Your task to perform on an android device: Show me the alarms in the clock app Image 0: 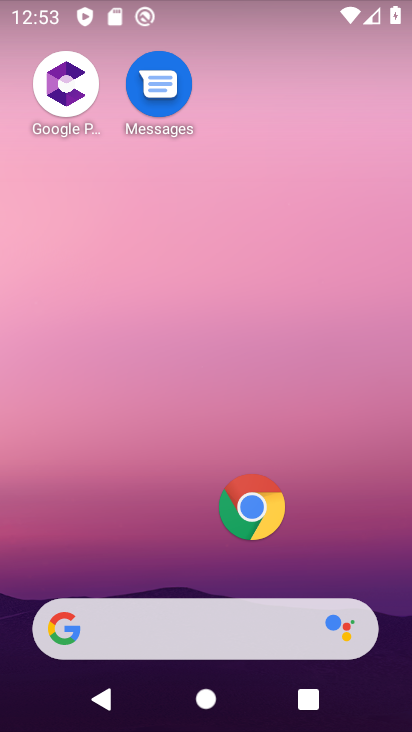
Step 0: drag from (184, 478) to (250, 45)
Your task to perform on an android device: Show me the alarms in the clock app Image 1: 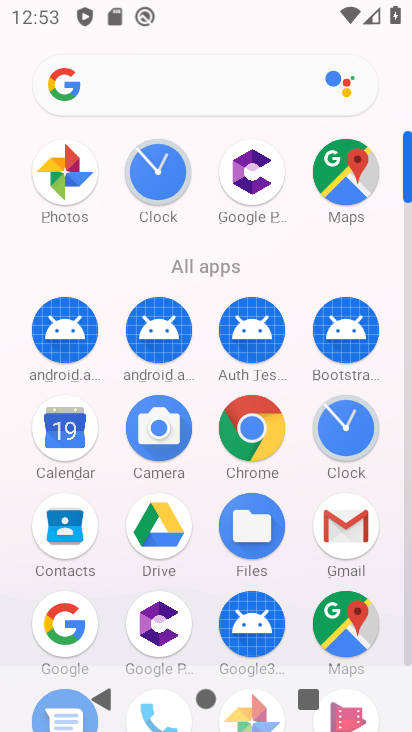
Step 1: click (349, 426)
Your task to perform on an android device: Show me the alarms in the clock app Image 2: 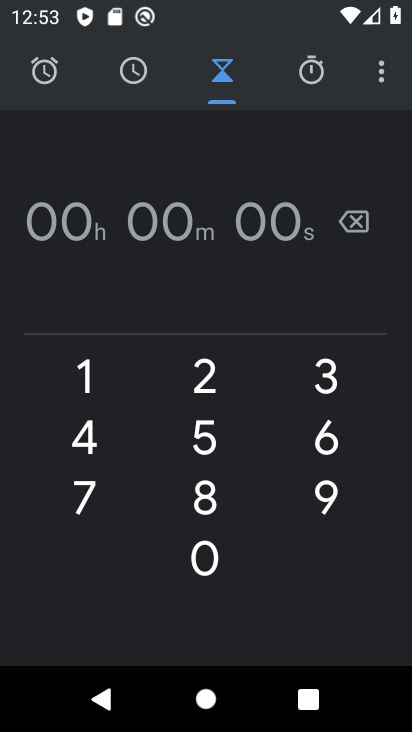
Step 2: click (52, 78)
Your task to perform on an android device: Show me the alarms in the clock app Image 3: 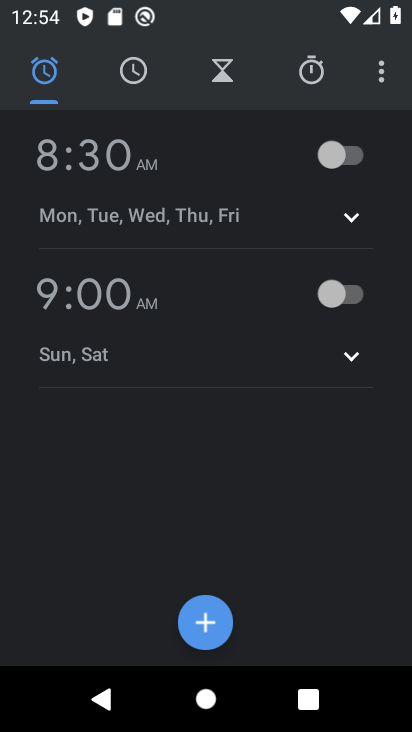
Step 3: task complete